Your task to perform on an android device: Turn on the flashlight Image 0: 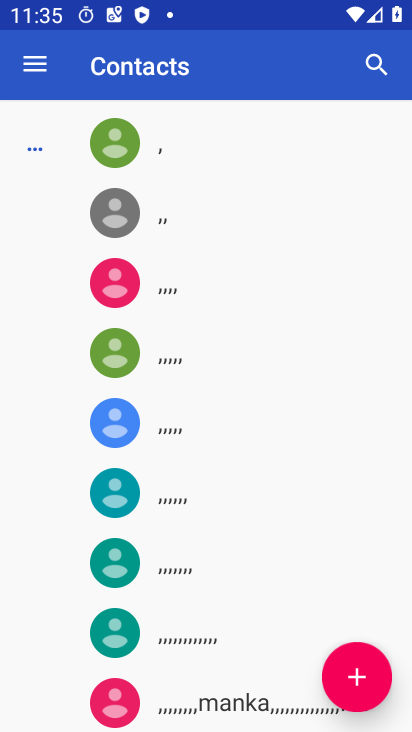
Step 0: press home button
Your task to perform on an android device: Turn on the flashlight Image 1: 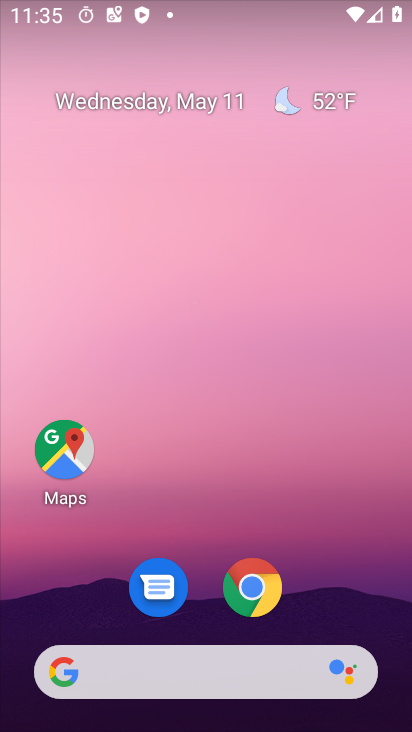
Step 1: drag from (209, 691) to (399, 214)
Your task to perform on an android device: Turn on the flashlight Image 2: 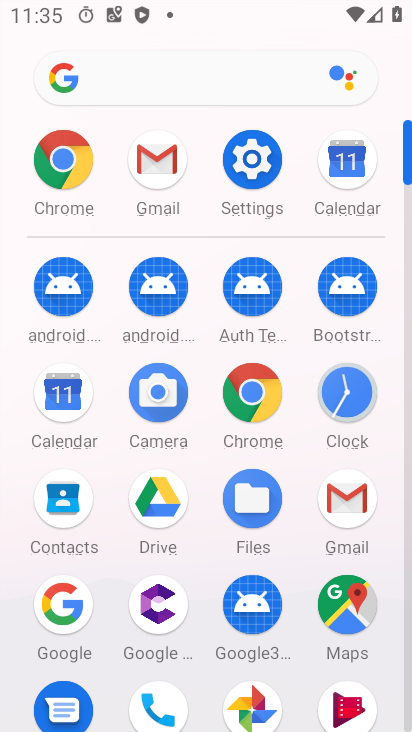
Step 2: click (251, 179)
Your task to perform on an android device: Turn on the flashlight Image 3: 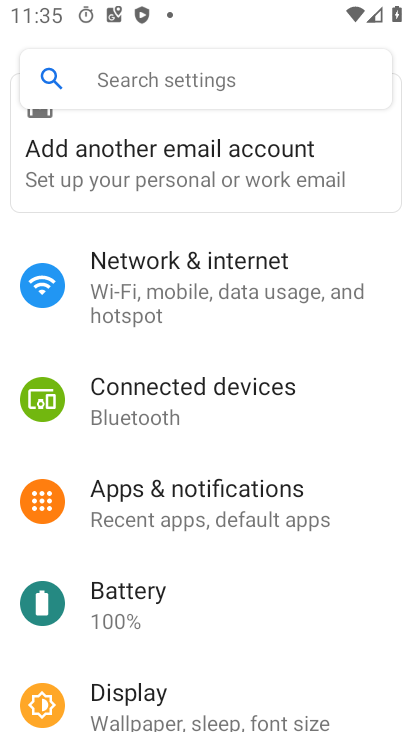
Step 3: click (133, 82)
Your task to perform on an android device: Turn on the flashlight Image 4: 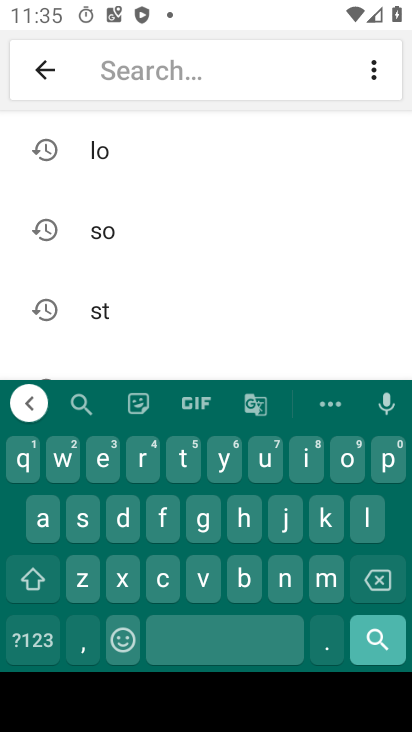
Step 4: click (164, 527)
Your task to perform on an android device: Turn on the flashlight Image 5: 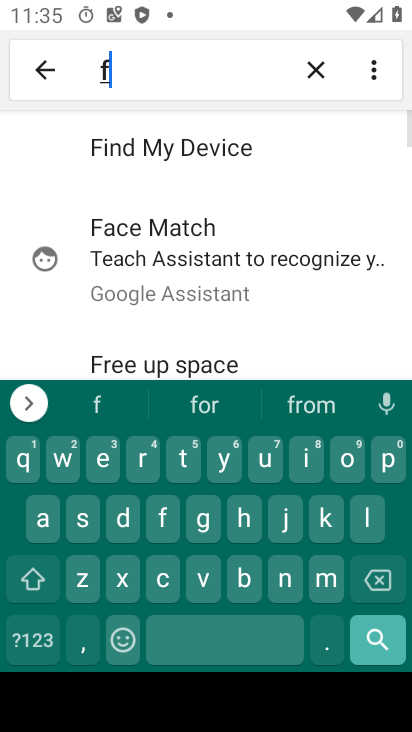
Step 5: click (373, 532)
Your task to perform on an android device: Turn on the flashlight Image 6: 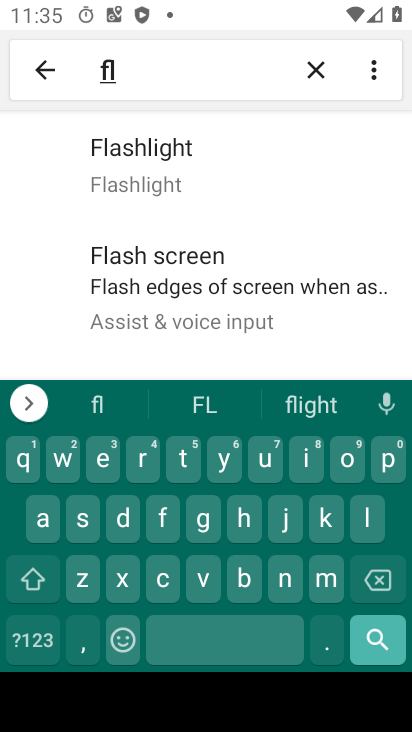
Step 6: click (165, 180)
Your task to perform on an android device: Turn on the flashlight Image 7: 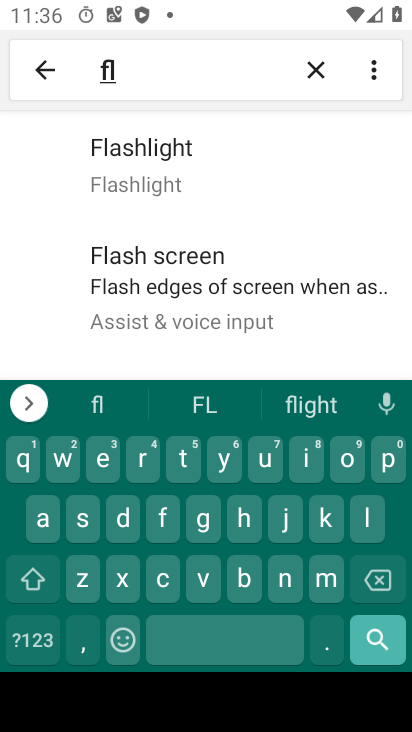
Step 7: task complete